Your task to perform on an android device: What's the weather going to be tomorrow? Image 0: 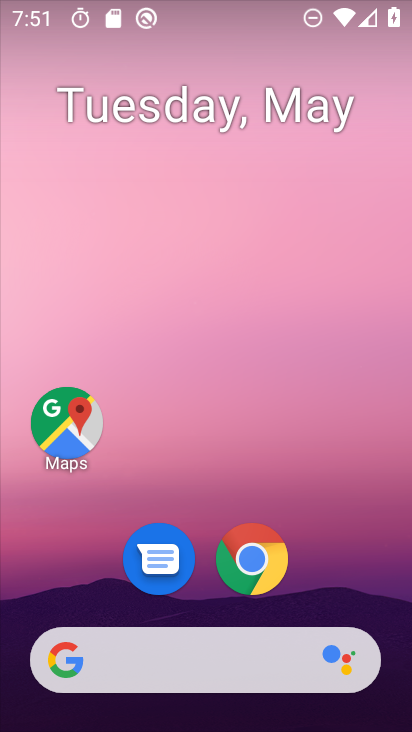
Step 0: drag from (394, 634) to (265, 60)
Your task to perform on an android device: What's the weather going to be tomorrow? Image 1: 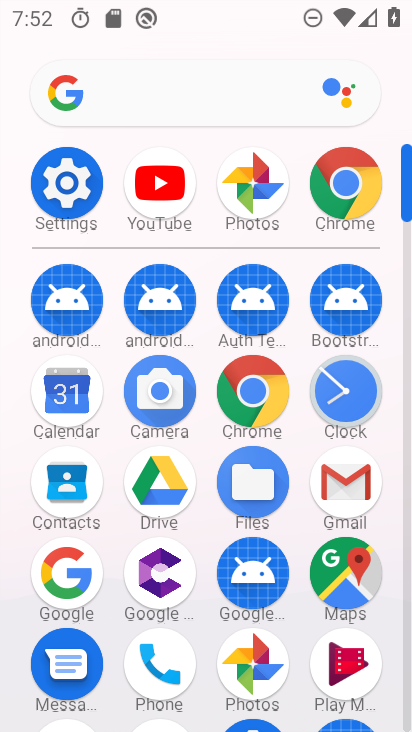
Step 1: click (64, 574)
Your task to perform on an android device: What's the weather going to be tomorrow? Image 2: 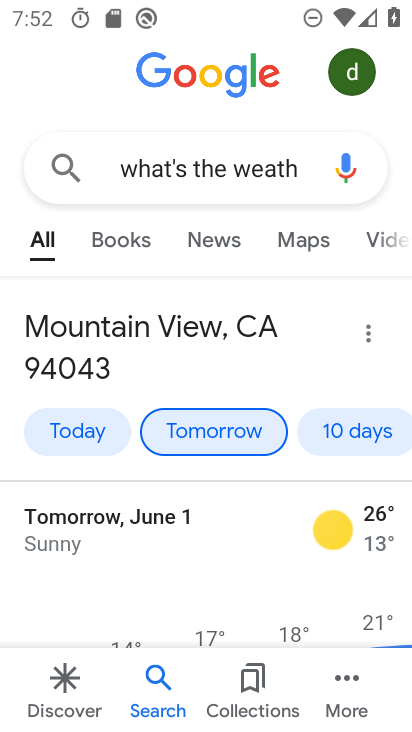
Step 2: task complete